Your task to perform on an android device: Go to wifi settings Image 0: 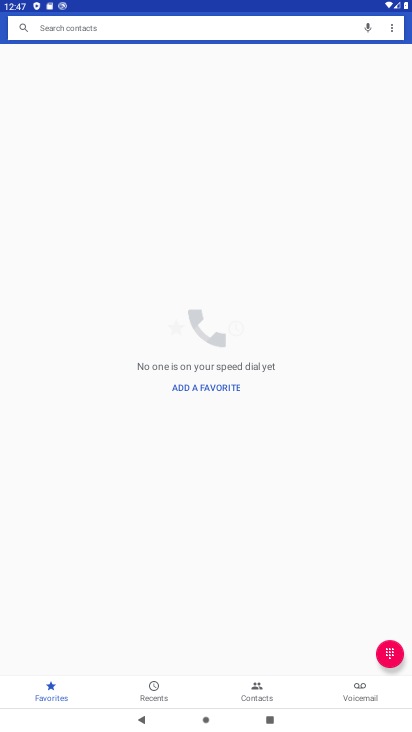
Step 0: press home button
Your task to perform on an android device: Go to wifi settings Image 1: 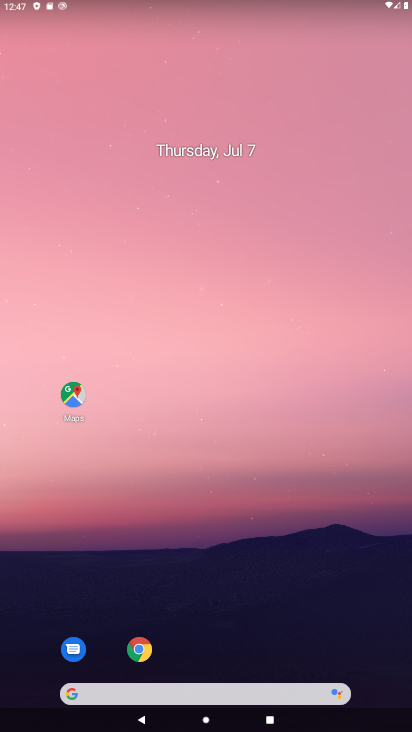
Step 1: drag from (234, 598) to (185, 51)
Your task to perform on an android device: Go to wifi settings Image 2: 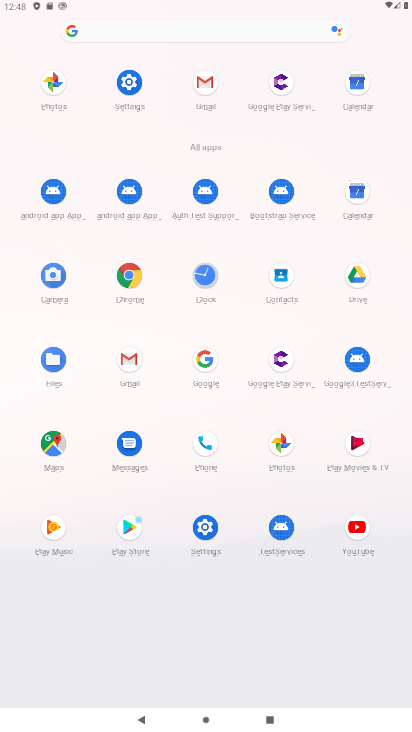
Step 2: click (206, 534)
Your task to perform on an android device: Go to wifi settings Image 3: 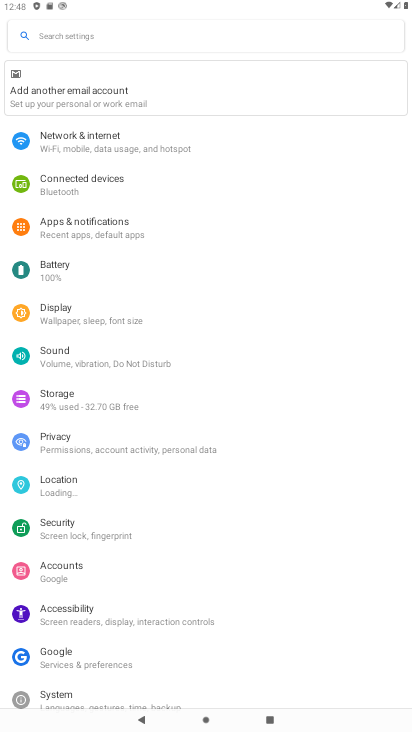
Step 3: click (174, 138)
Your task to perform on an android device: Go to wifi settings Image 4: 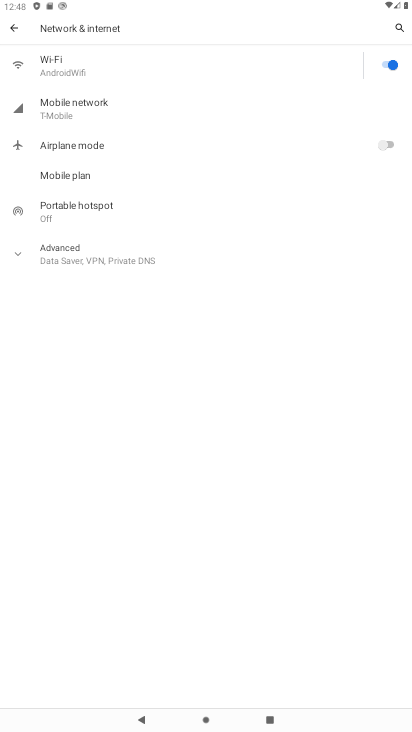
Step 4: click (72, 64)
Your task to perform on an android device: Go to wifi settings Image 5: 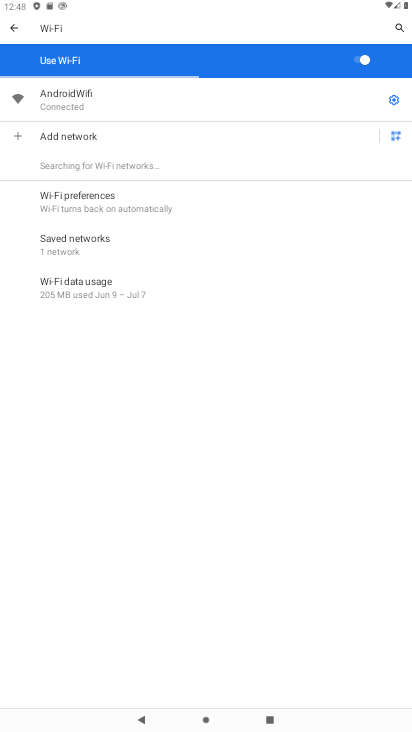
Step 5: task complete